Your task to perform on an android device: find photos in the google photos app Image 0: 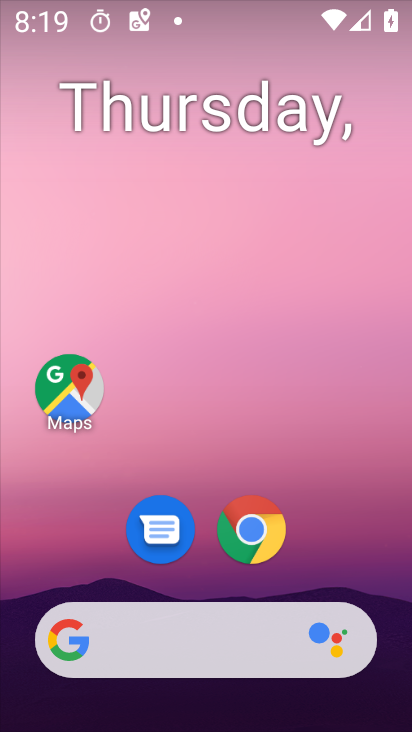
Step 0: drag from (393, 723) to (344, 136)
Your task to perform on an android device: find photos in the google photos app Image 1: 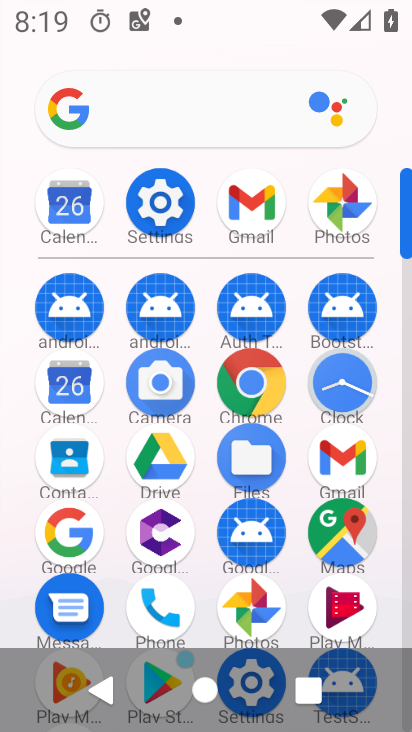
Step 1: click (254, 592)
Your task to perform on an android device: find photos in the google photos app Image 2: 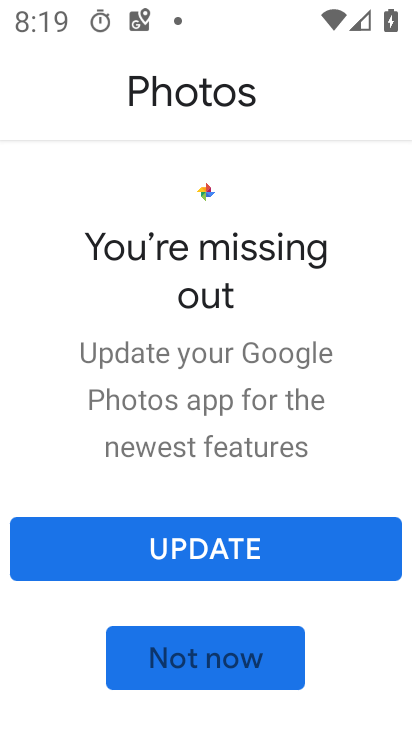
Step 2: click (253, 559)
Your task to perform on an android device: find photos in the google photos app Image 3: 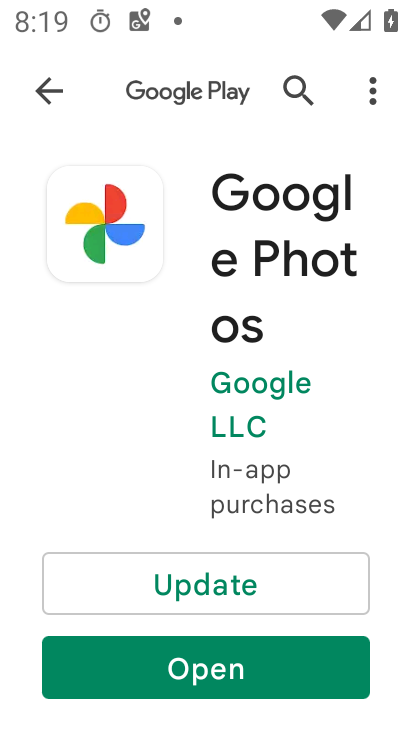
Step 3: click (267, 606)
Your task to perform on an android device: find photos in the google photos app Image 4: 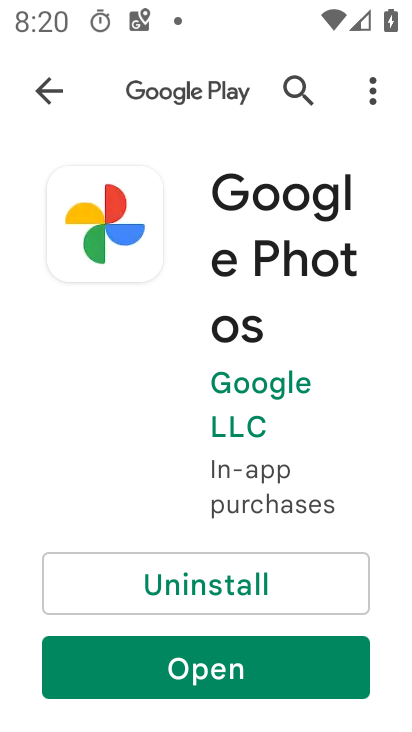
Step 4: click (218, 659)
Your task to perform on an android device: find photos in the google photos app Image 5: 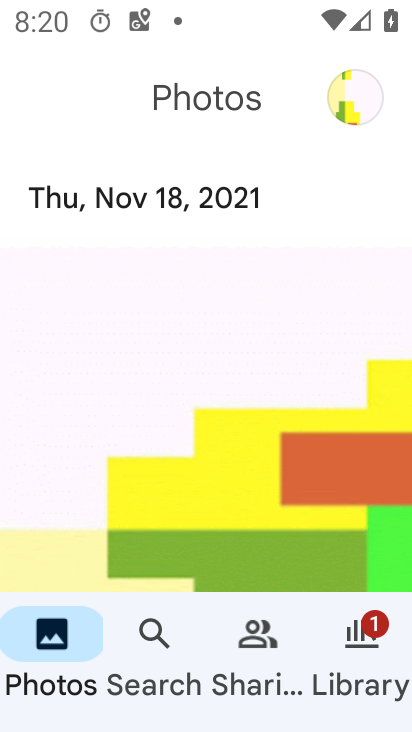
Step 5: click (379, 434)
Your task to perform on an android device: find photos in the google photos app Image 6: 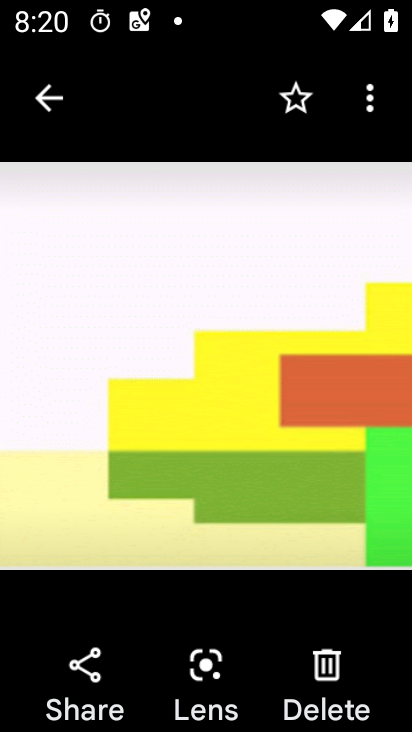
Step 6: click (396, 452)
Your task to perform on an android device: find photos in the google photos app Image 7: 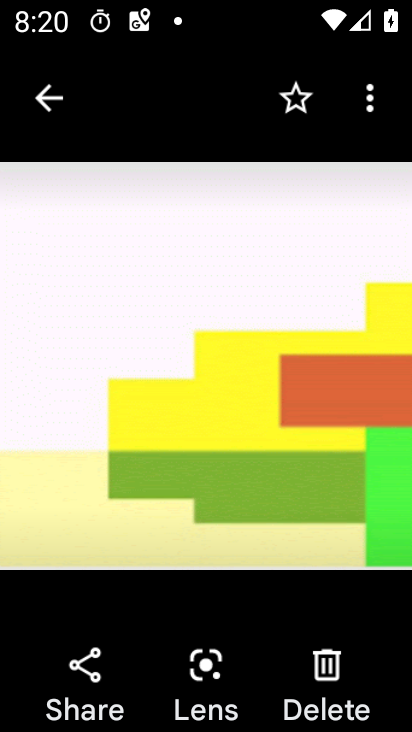
Step 7: click (396, 452)
Your task to perform on an android device: find photos in the google photos app Image 8: 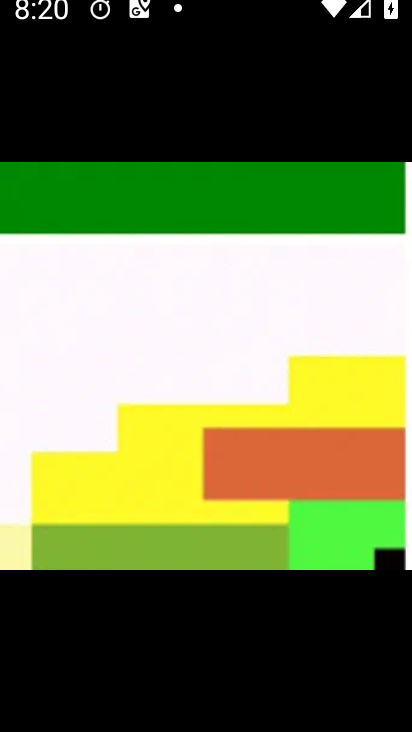
Step 8: click (409, 412)
Your task to perform on an android device: find photos in the google photos app Image 9: 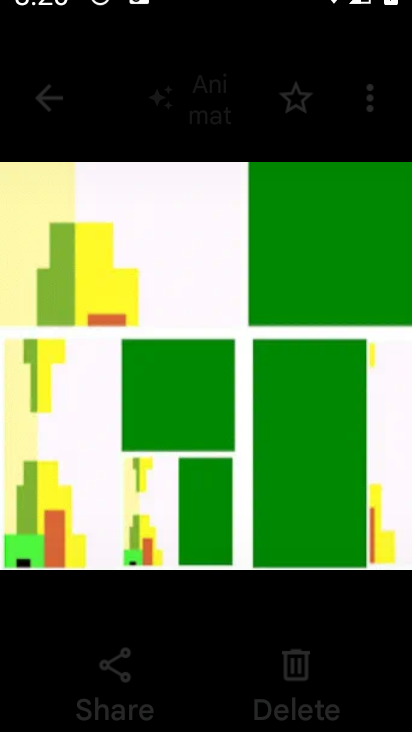
Step 9: click (409, 412)
Your task to perform on an android device: find photos in the google photos app Image 10: 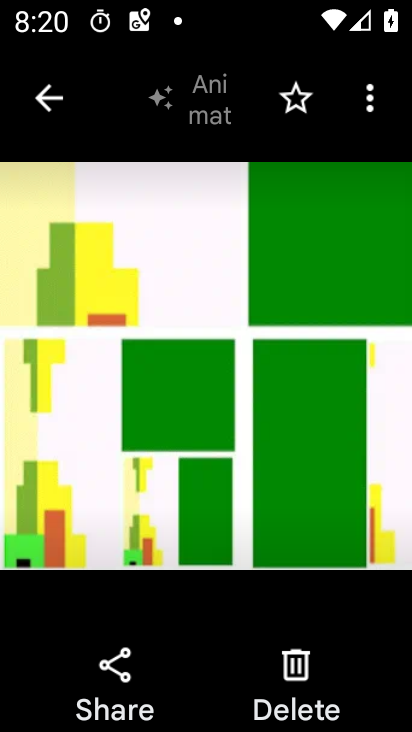
Step 10: click (409, 412)
Your task to perform on an android device: find photos in the google photos app Image 11: 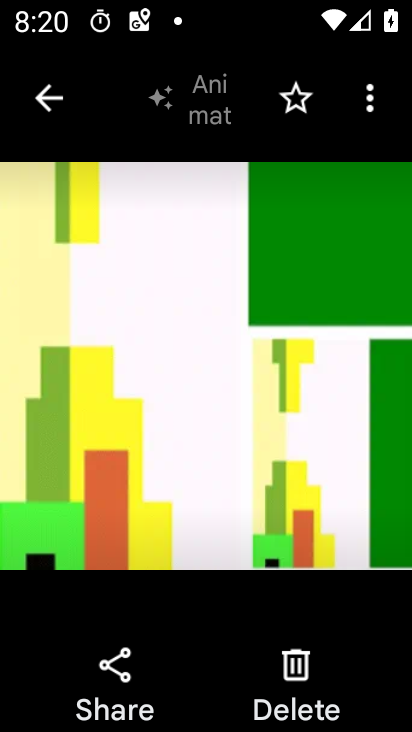
Step 11: click (409, 412)
Your task to perform on an android device: find photos in the google photos app Image 12: 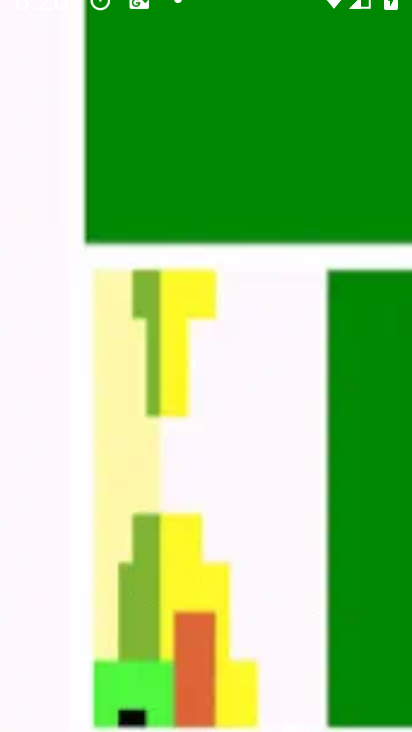
Step 12: task complete